Your task to perform on an android device: check android version Image 0: 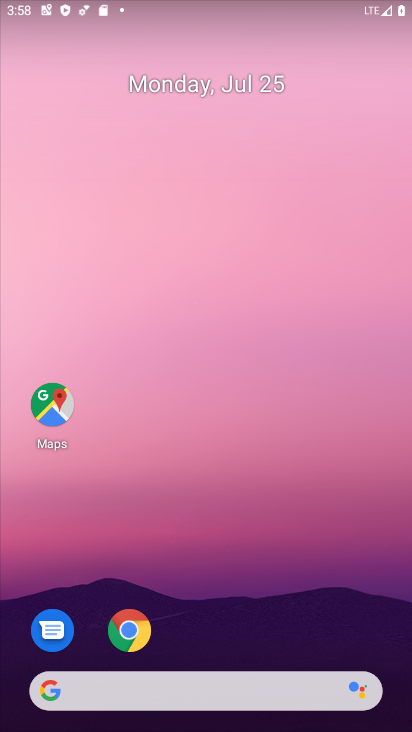
Step 0: drag from (219, 642) to (280, 11)
Your task to perform on an android device: check android version Image 1: 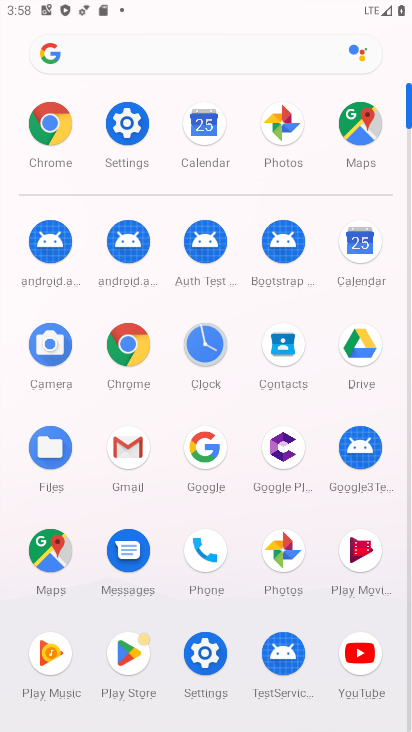
Step 1: click (202, 656)
Your task to perform on an android device: check android version Image 2: 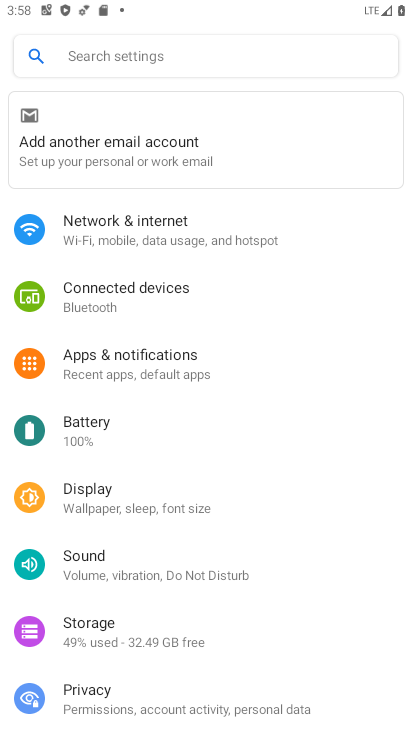
Step 2: drag from (195, 678) to (243, 108)
Your task to perform on an android device: check android version Image 3: 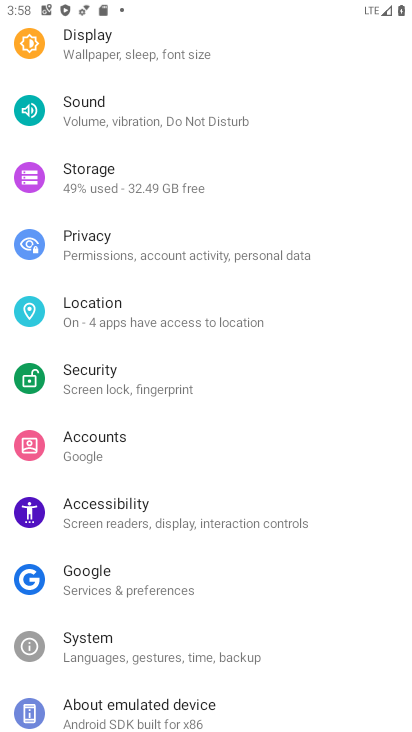
Step 3: drag from (193, 683) to (230, 349)
Your task to perform on an android device: check android version Image 4: 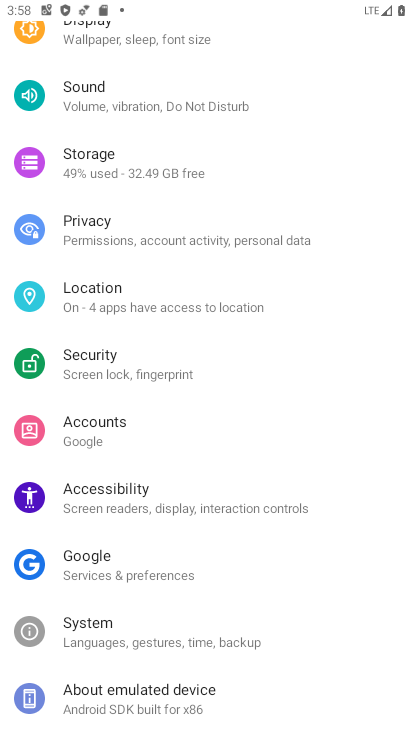
Step 4: click (146, 700)
Your task to perform on an android device: check android version Image 5: 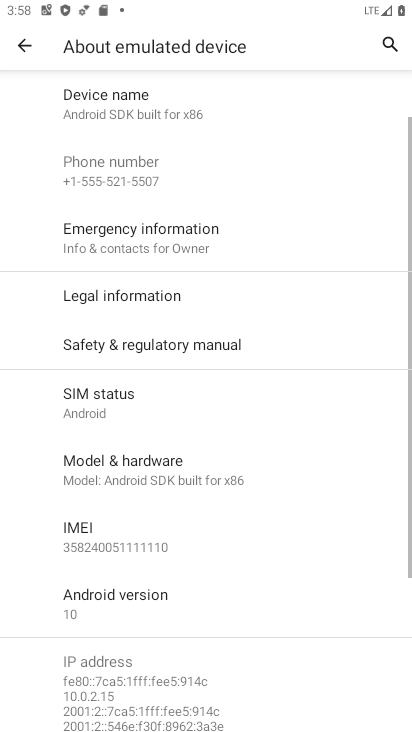
Step 5: click (139, 609)
Your task to perform on an android device: check android version Image 6: 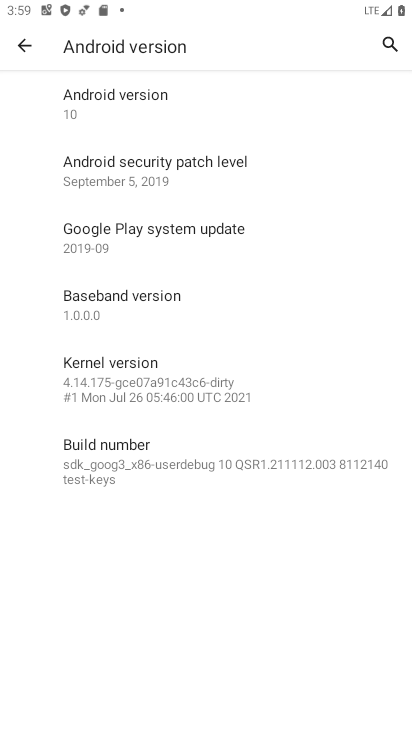
Step 6: task complete